Your task to perform on an android device: Open calendar and show me the fourth week of next month Image 0: 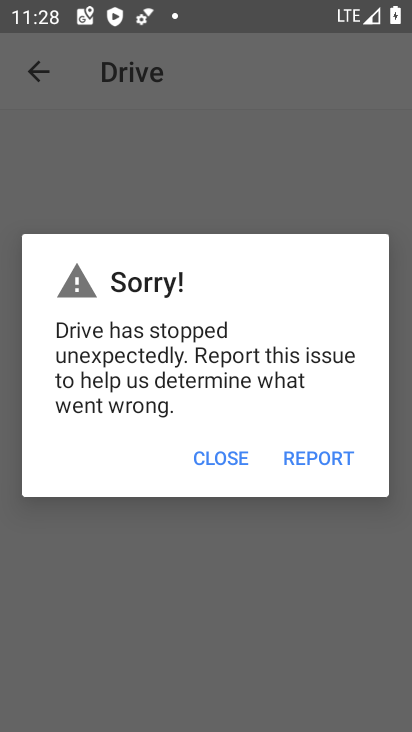
Step 0: press home button
Your task to perform on an android device: Open calendar and show me the fourth week of next month Image 1: 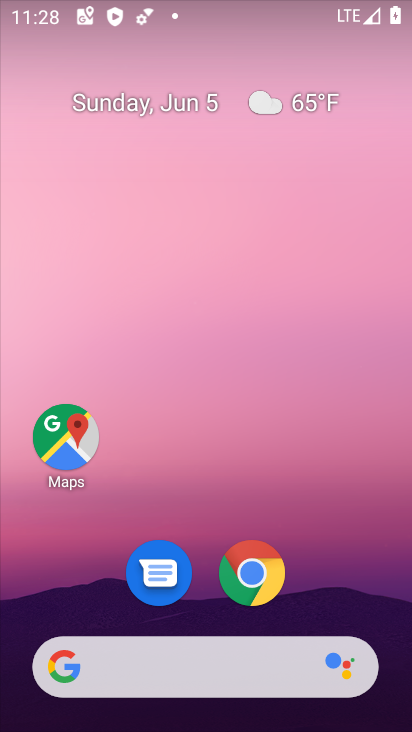
Step 1: drag from (205, 454) to (230, 137)
Your task to perform on an android device: Open calendar and show me the fourth week of next month Image 2: 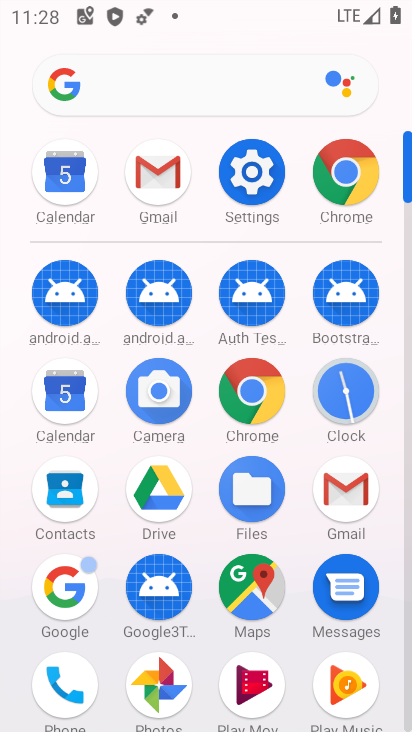
Step 2: click (93, 422)
Your task to perform on an android device: Open calendar and show me the fourth week of next month Image 3: 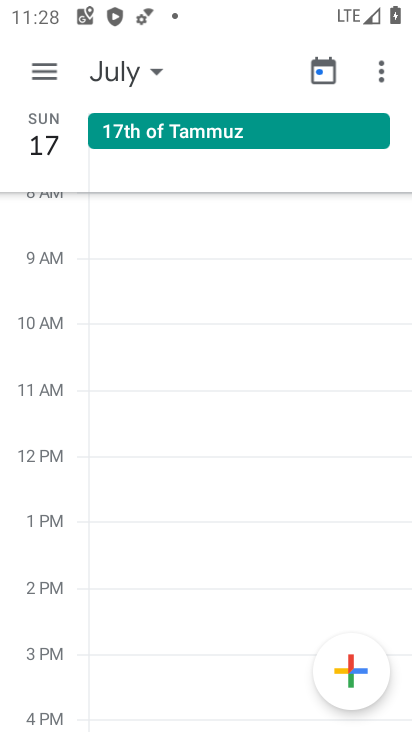
Step 3: click (126, 77)
Your task to perform on an android device: Open calendar and show me the fourth week of next month Image 4: 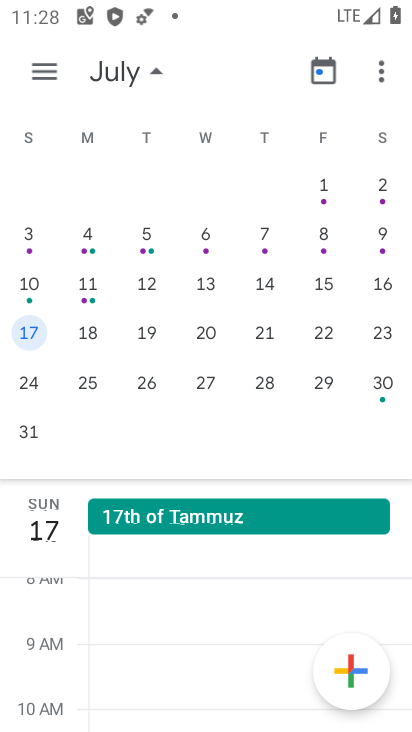
Step 4: click (155, 70)
Your task to perform on an android device: Open calendar and show me the fourth week of next month Image 5: 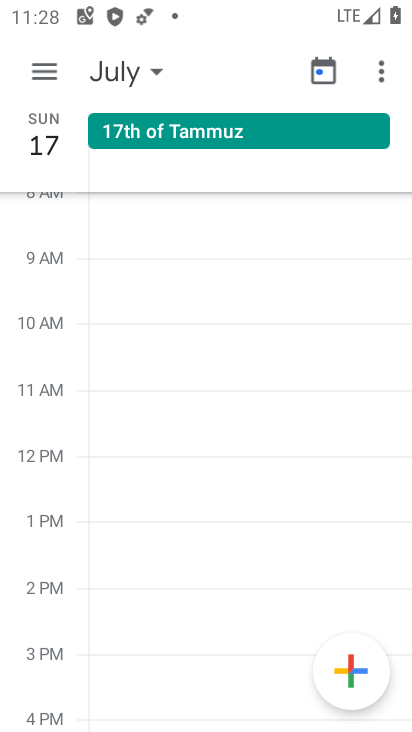
Step 5: click (49, 67)
Your task to perform on an android device: Open calendar and show me the fourth week of next month Image 6: 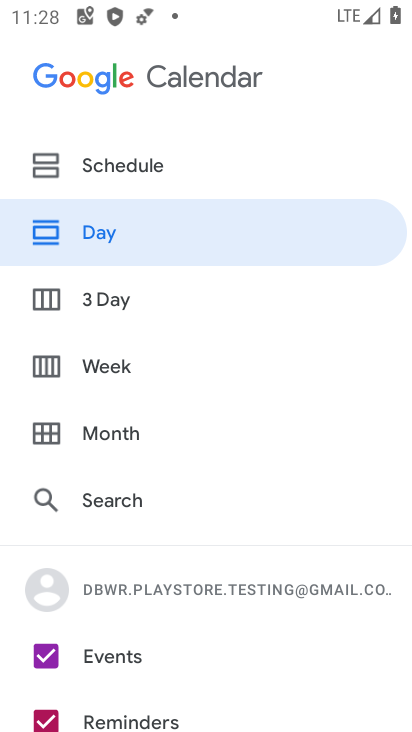
Step 6: click (128, 376)
Your task to perform on an android device: Open calendar and show me the fourth week of next month Image 7: 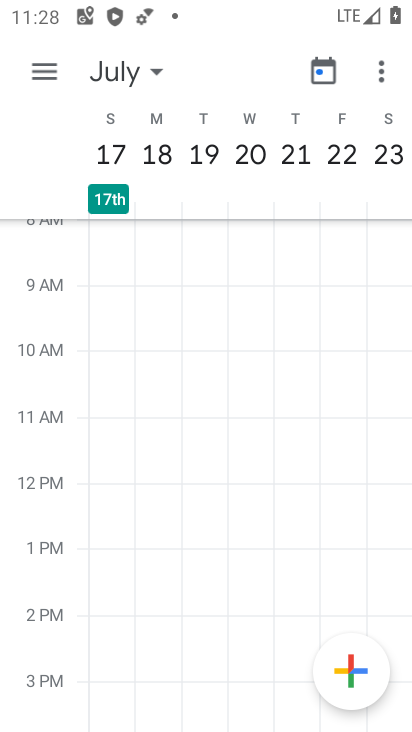
Step 7: task complete